Your task to perform on an android device: Show the shopping cart on amazon.com. Search for usb-a to usb-b on amazon.com, select the first entry, and add it to the cart. Image 0: 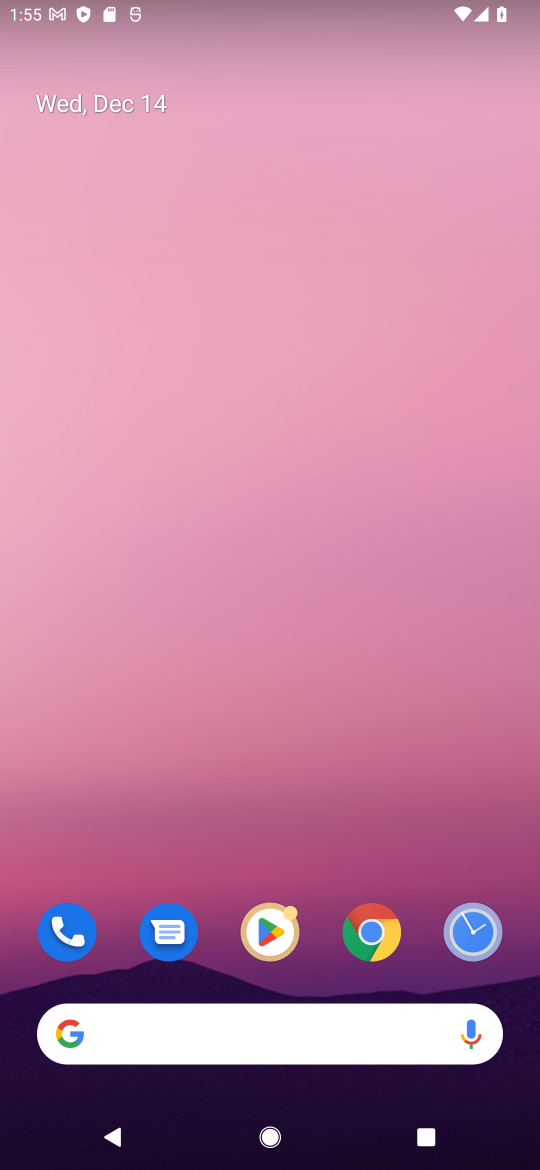
Step 0: drag from (199, 924) to (220, 312)
Your task to perform on an android device: Show the shopping cart on amazon.com. Search for usb-a to usb-b on amazon.com, select the first entry, and add it to the cart. Image 1: 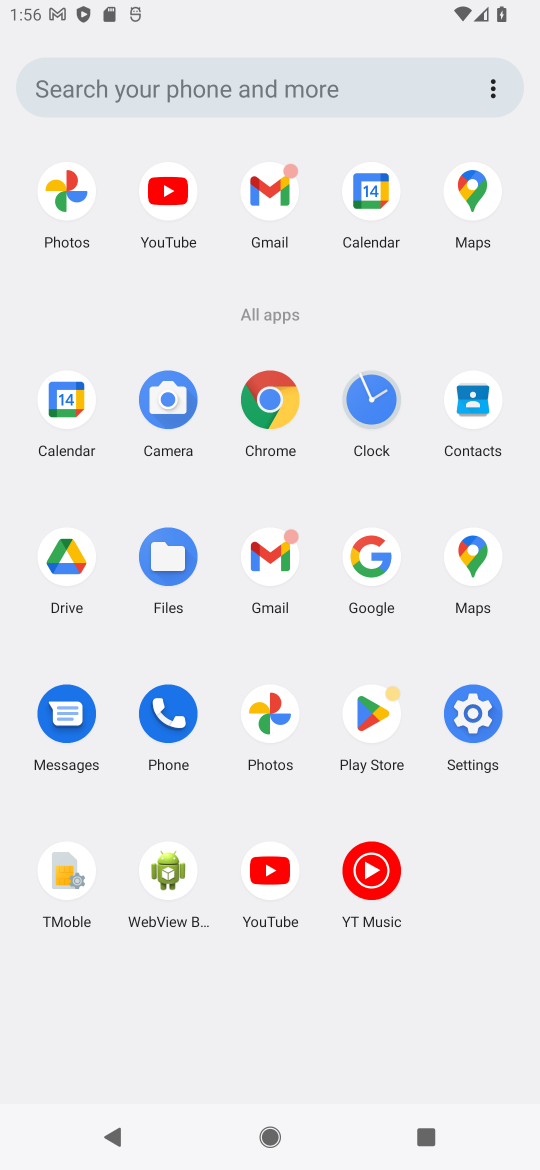
Step 1: press home button
Your task to perform on an android device: Show the shopping cart on amazon.com. Search for usb-a to usb-b on amazon.com, select the first entry, and add it to the cart. Image 2: 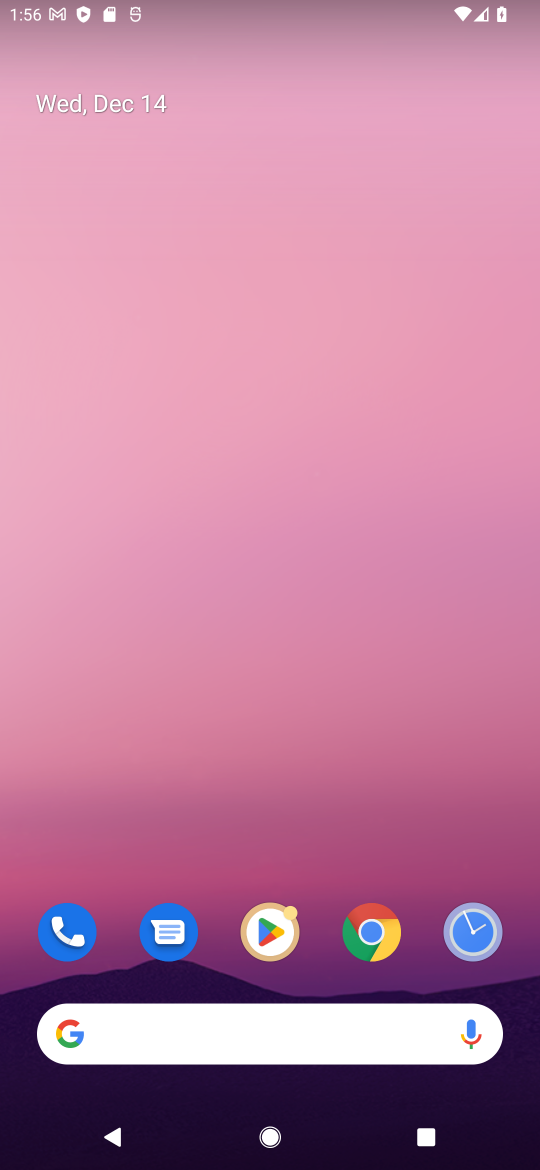
Step 2: click (296, 1017)
Your task to perform on an android device: Show the shopping cart on amazon.com. Search for usb-a to usb-b on amazon.com, select the first entry, and add it to the cart. Image 3: 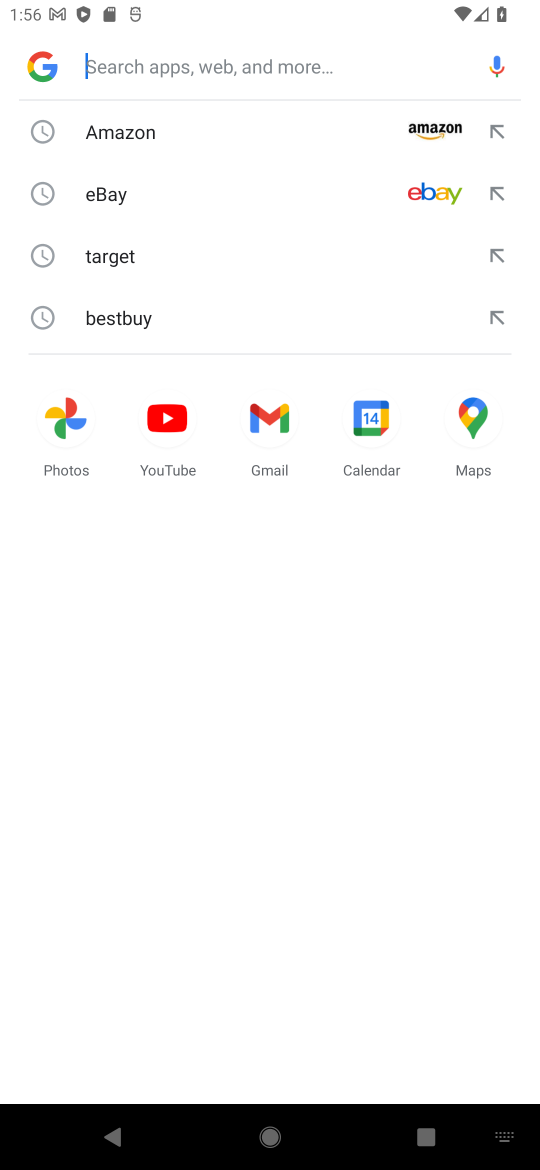
Step 3: click (125, 140)
Your task to perform on an android device: Show the shopping cart on amazon.com. Search for usb-a to usb-b on amazon.com, select the first entry, and add it to the cart. Image 4: 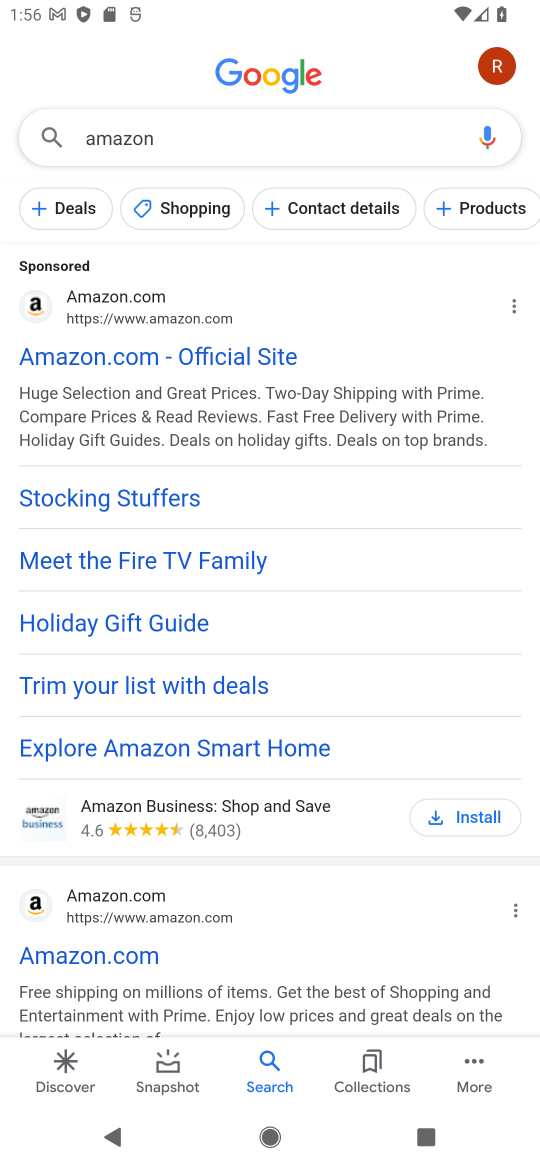
Step 4: click (210, 349)
Your task to perform on an android device: Show the shopping cart on amazon.com. Search for usb-a to usb-b on amazon.com, select the first entry, and add it to the cart. Image 5: 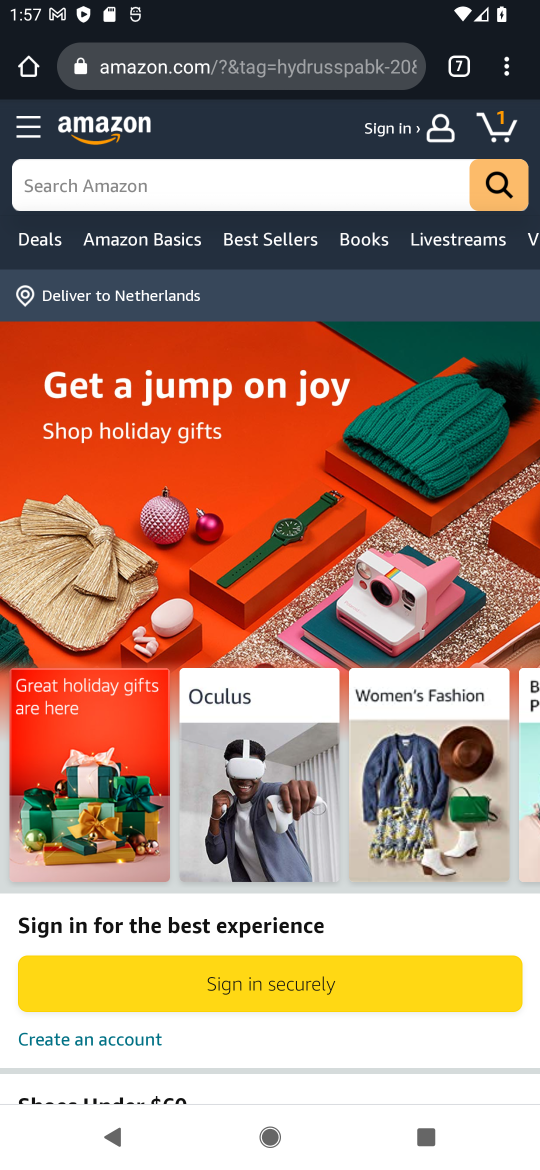
Step 5: click (485, 130)
Your task to perform on an android device: Show the shopping cart on amazon.com. Search for usb-a to usb-b on amazon.com, select the first entry, and add it to the cart. Image 6: 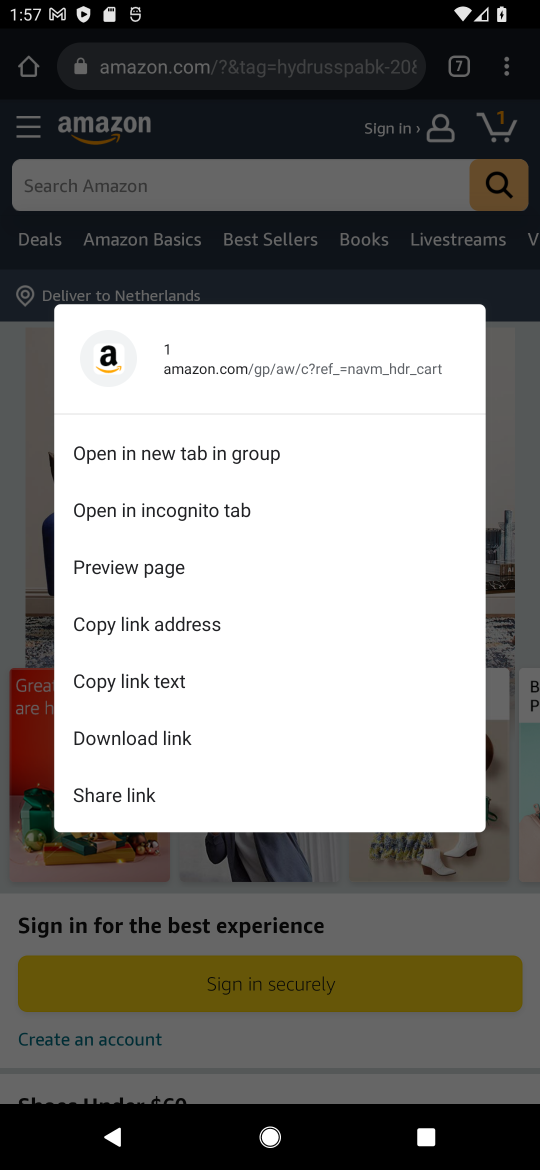
Step 6: click (486, 130)
Your task to perform on an android device: Show the shopping cart on amazon.com. Search for usb-a to usb-b on amazon.com, select the first entry, and add it to the cart. Image 7: 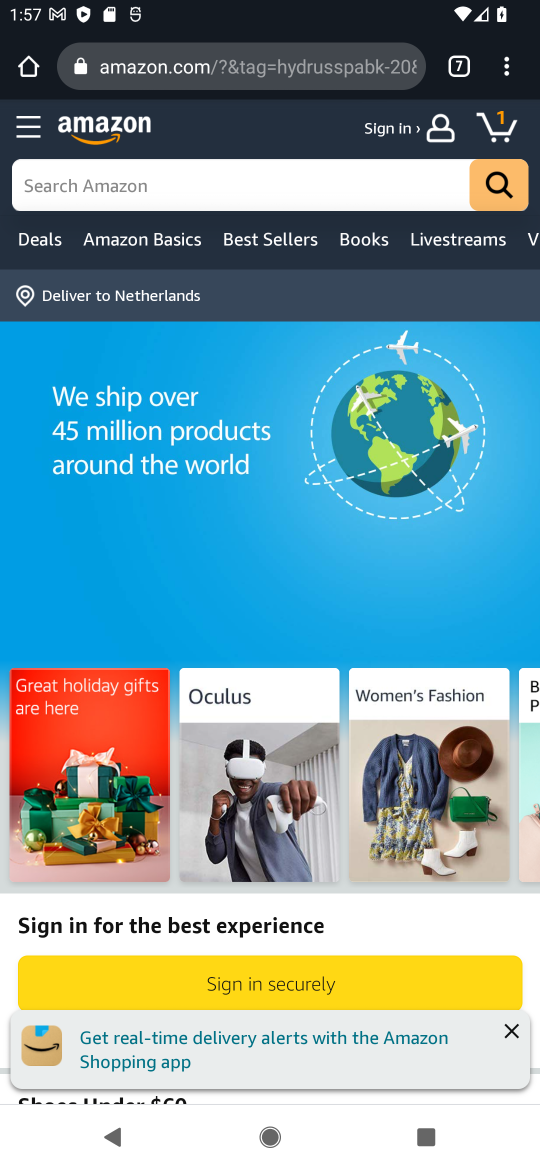
Step 7: click (502, 130)
Your task to perform on an android device: Show the shopping cart on amazon.com. Search for usb-a to usb-b on amazon.com, select the first entry, and add it to the cart. Image 8: 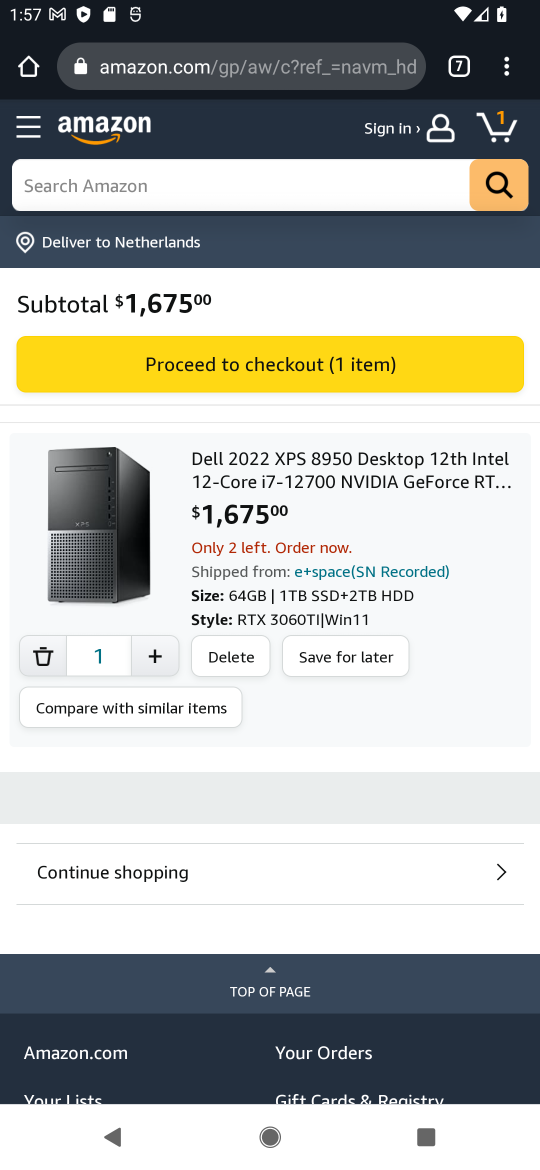
Step 8: click (216, 659)
Your task to perform on an android device: Show the shopping cart on amazon.com. Search for usb-a to usb-b on amazon.com, select the first entry, and add it to the cart. Image 9: 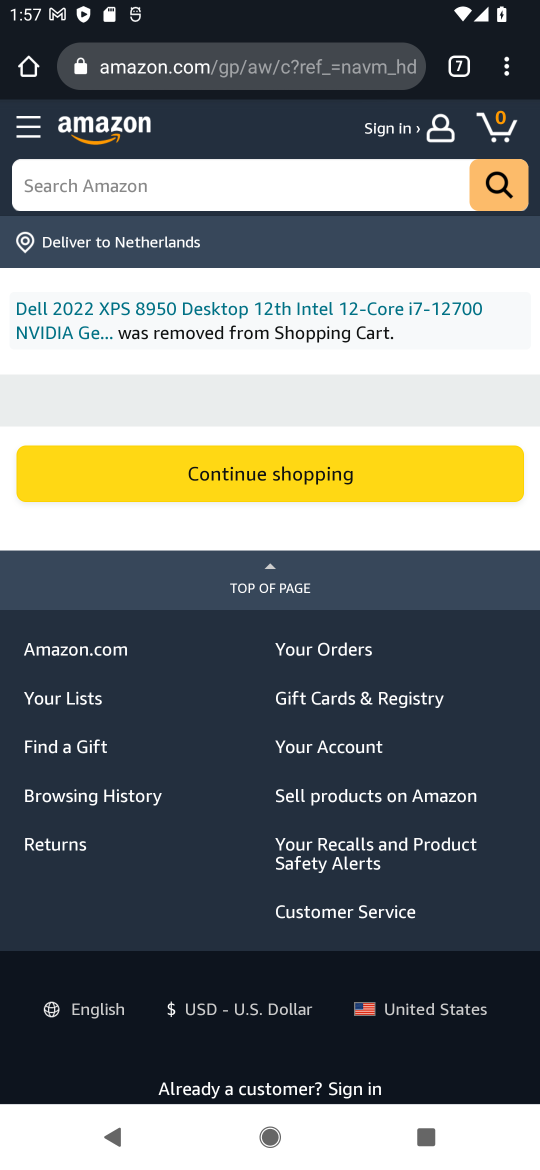
Step 9: click (315, 178)
Your task to perform on an android device: Show the shopping cart on amazon.com. Search for usb-a to usb-b on amazon.com, select the first entry, and add it to the cart. Image 10: 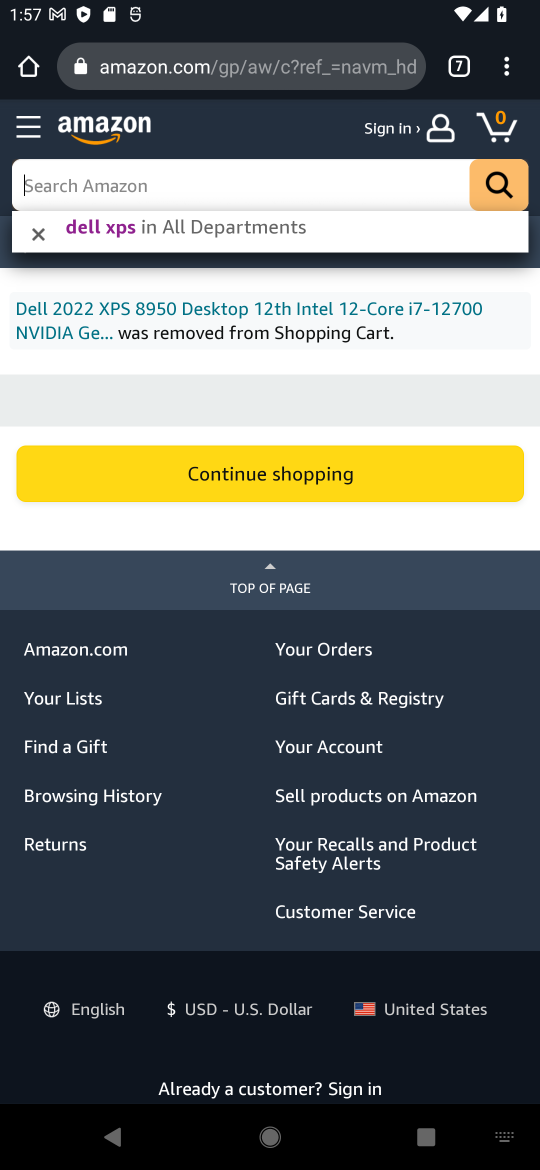
Step 10: type " usb-a to usb-b "
Your task to perform on an android device: Show the shopping cart on amazon.com. Search for usb-a to usb-b on amazon.com, select the first entry, and add it to the cart. Image 11: 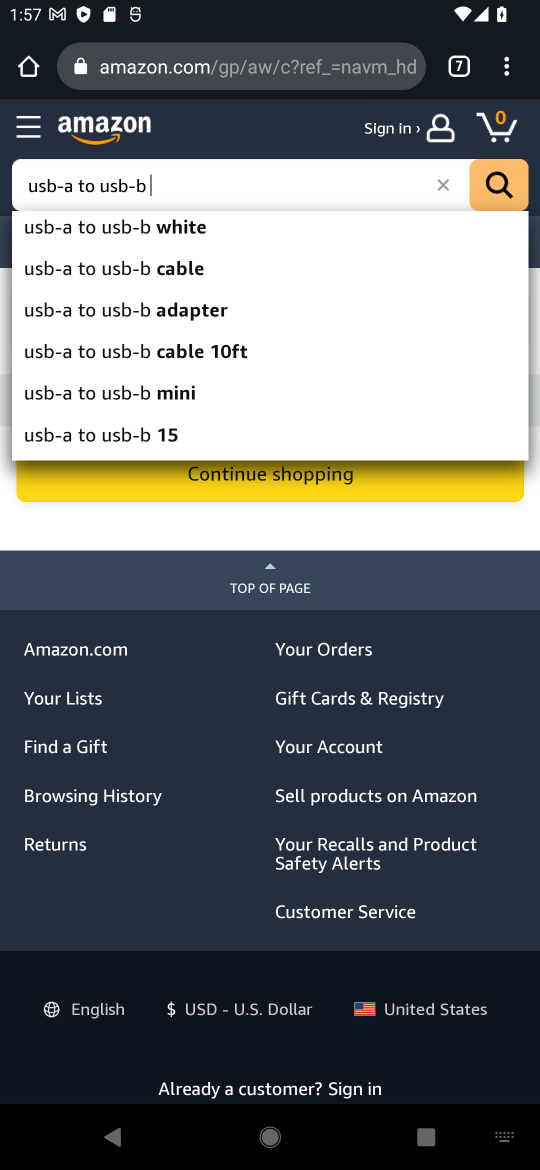
Step 11: drag from (160, 228) to (505, 193)
Your task to perform on an android device: Show the shopping cart on amazon.com. Search for usb-a to usb-b on amazon.com, select the first entry, and add it to the cart. Image 12: 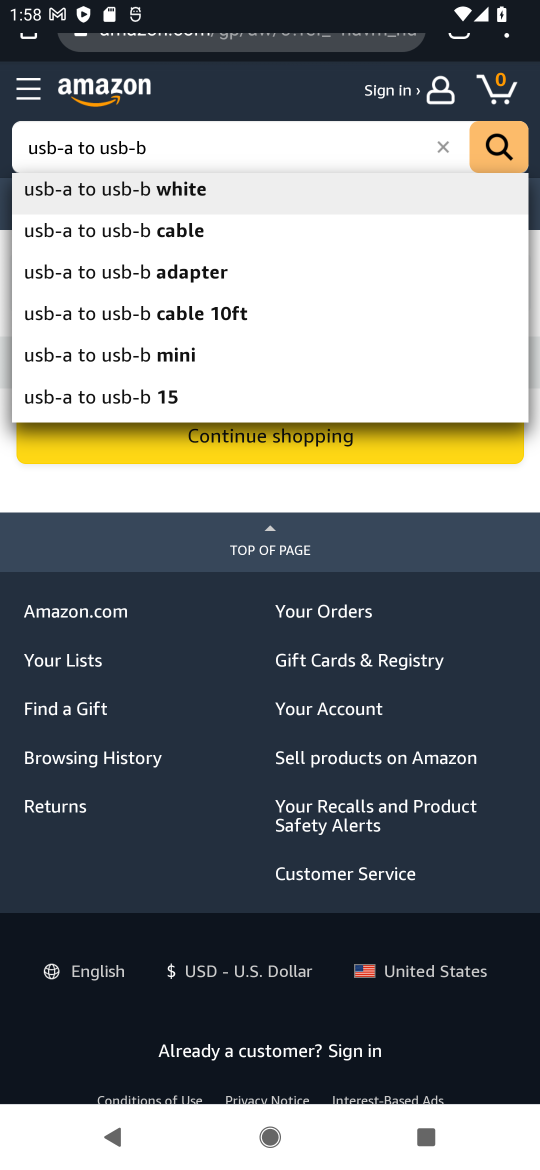
Step 12: click (505, 193)
Your task to perform on an android device: Show the shopping cart on amazon.com. Search for usb-a to usb-b on amazon.com, select the first entry, and add it to the cart. Image 13: 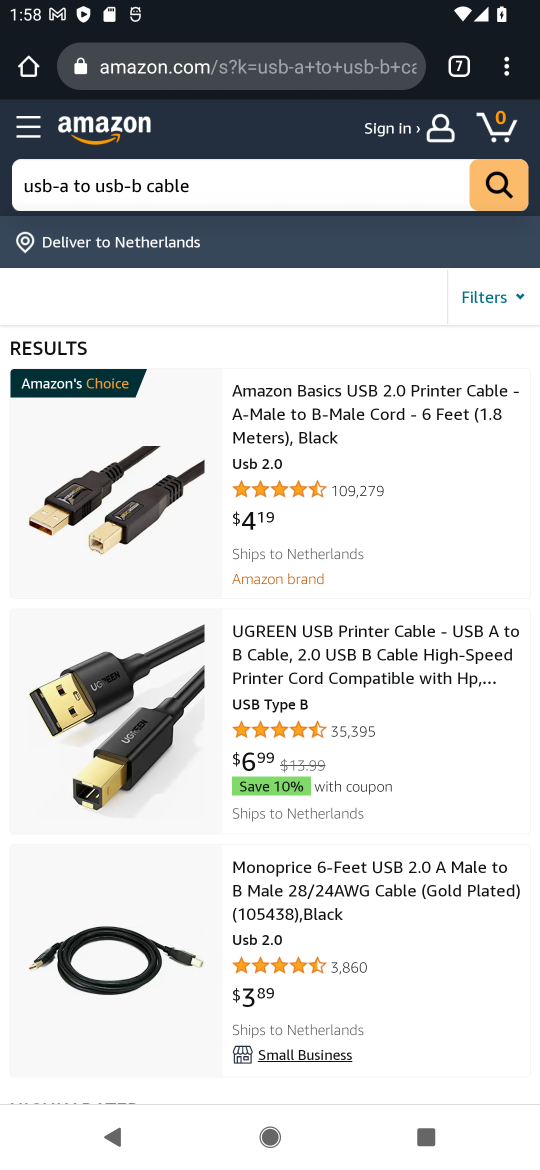
Step 13: click (263, 417)
Your task to perform on an android device: Show the shopping cart on amazon.com. Search for usb-a to usb-b on amazon.com, select the first entry, and add it to the cart. Image 14: 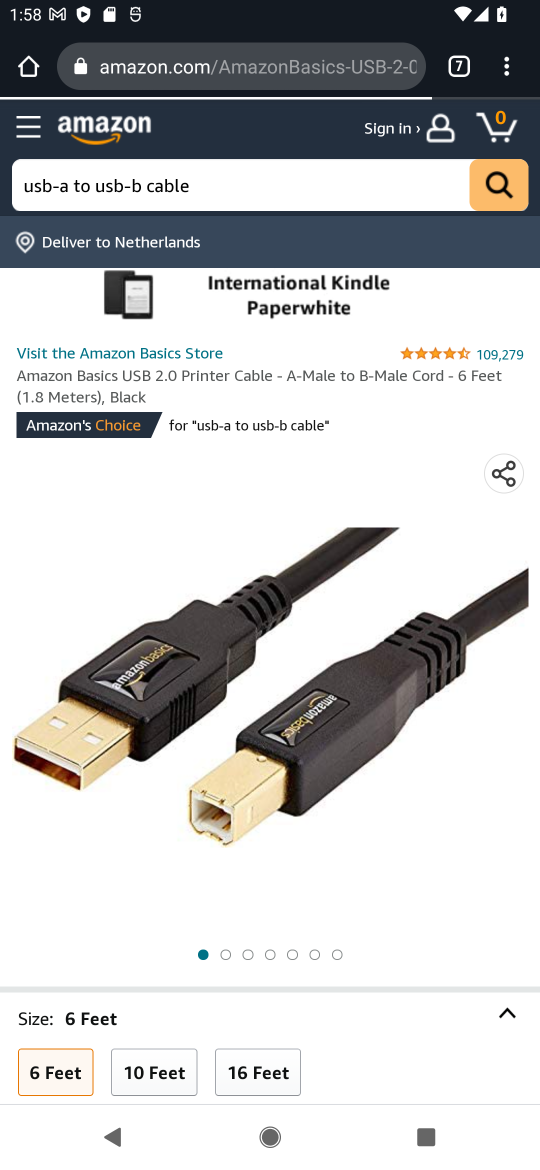
Step 14: drag from (389, 735) to (319, 436)
Your task to perform on an android device: Show the shopping cart on amazon.com. Search for usb-a to usb-b on amazon.com, select the first entry, and add it to the cart. Image 15: 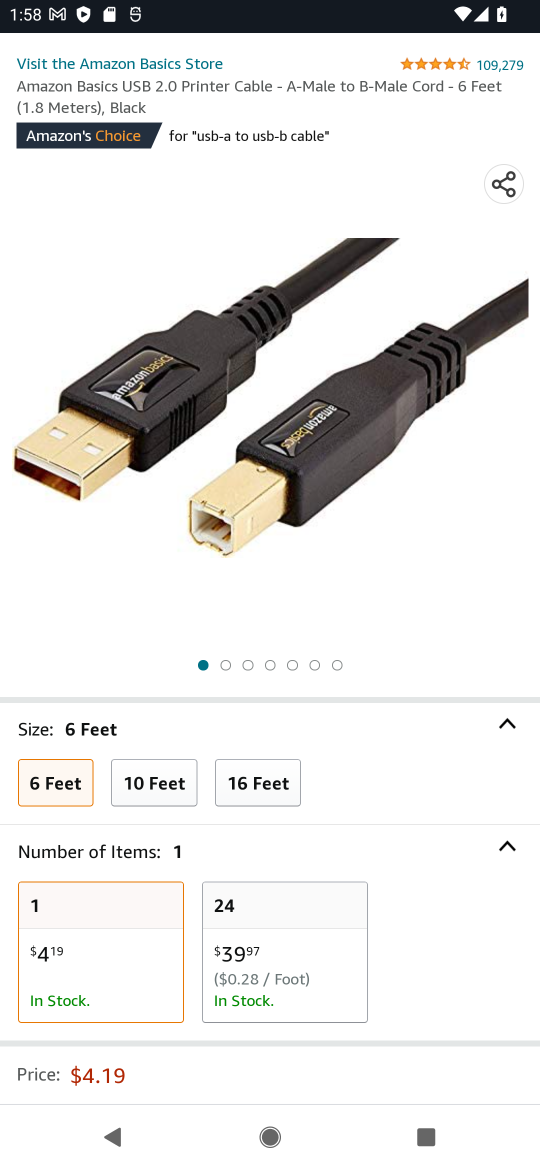
Step 15: drag from (312, 739) to (432, 142)
Your task to perform on an android device: Show the shopping cart on amazon.com. Search for usb-a to usb-b on amazon.com, select the first entry, and add it to the cart. Image 16: 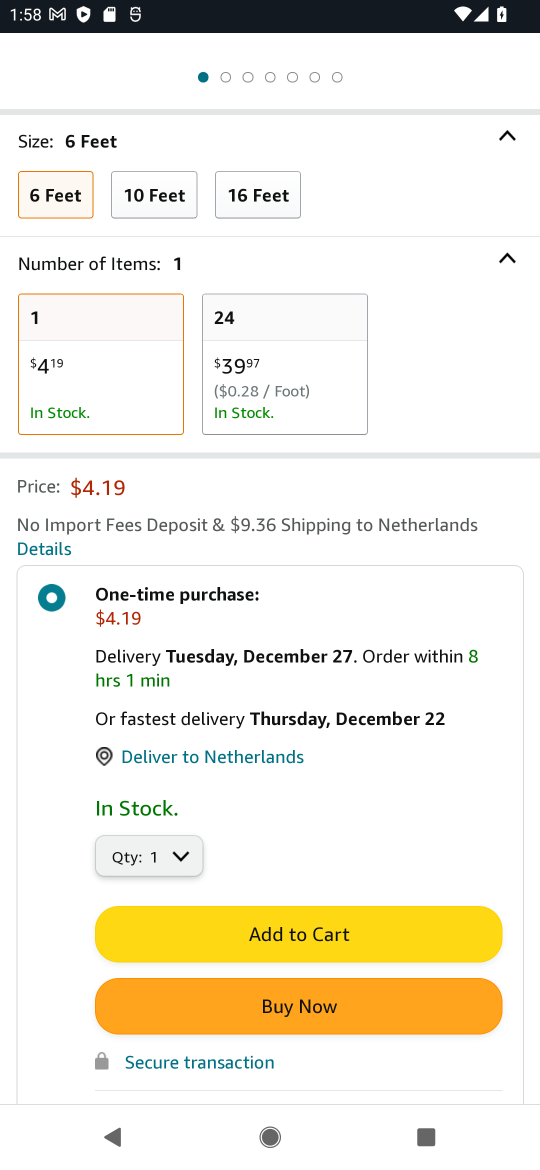
Step 16: click (283, 919)
Your task to perform on an android device: Show the shopping cart on amazon.com. Search for usb-a to usb-b on amazon.com, select the first entry, and add it to the cart. Image 17: 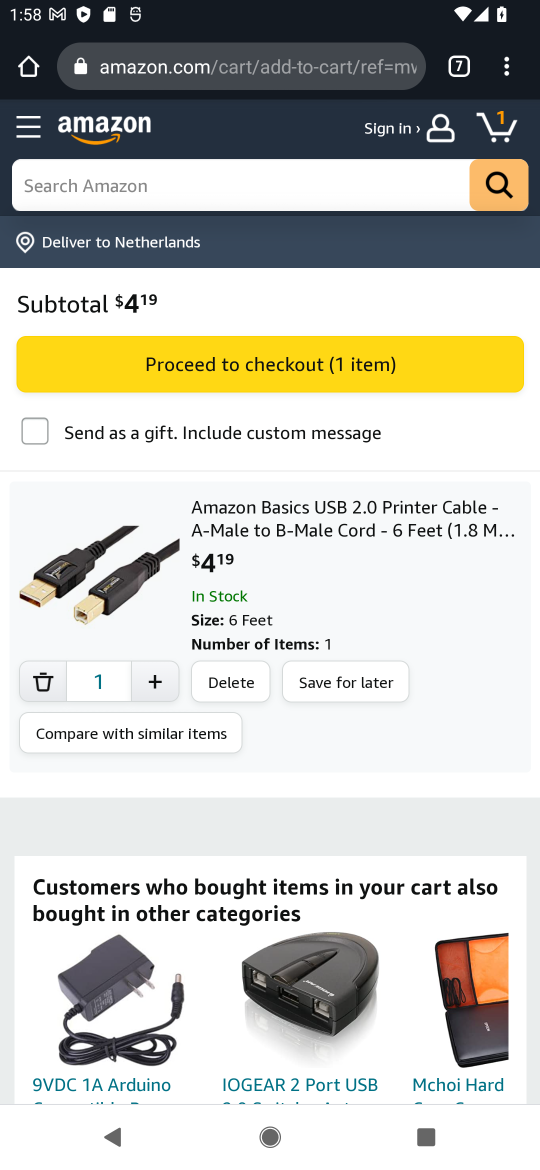
Step 17: task complete